Your task to perform on an android device: toggle data saver in the chrome app Image 0: 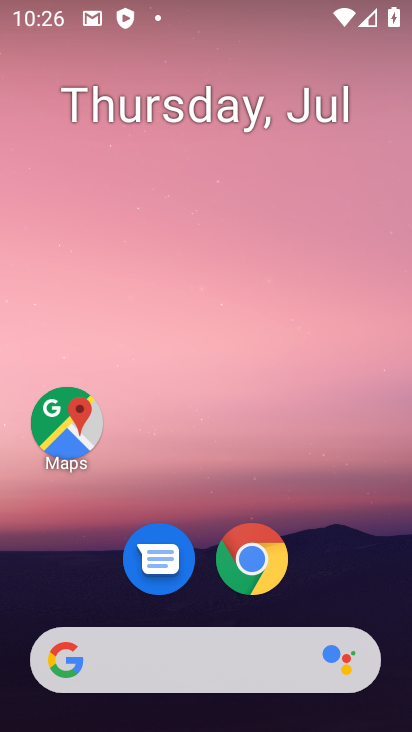
Step 0: click (257, 574)
Your task to perform on an android device: toggle data saver in the chrome app Image 1: 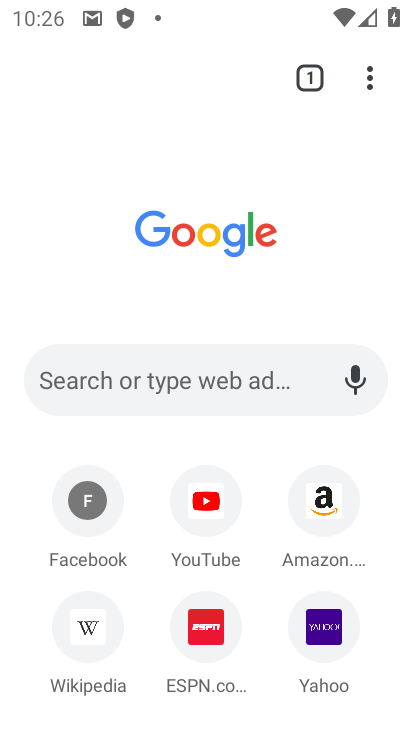
Step 1: drag from (369, 76) to (82, 609)
Your task to perform on an android device: toggle data saver in the chrome app Image 2: 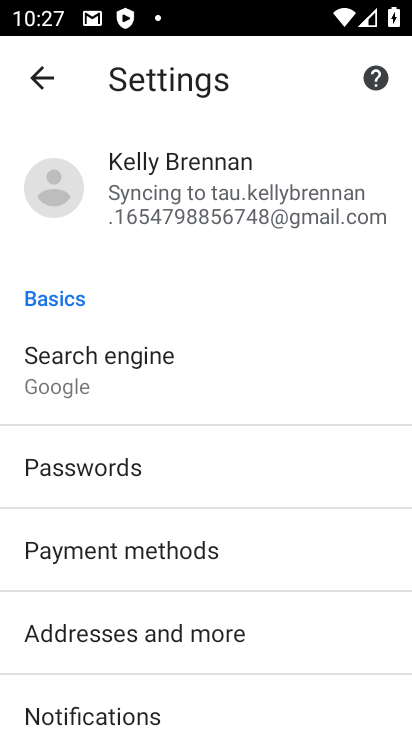
Step 2: drag from (143, 670) to (245, 170)
Your task to perform on an android device: toggle data saver in the chrome app Image 3: 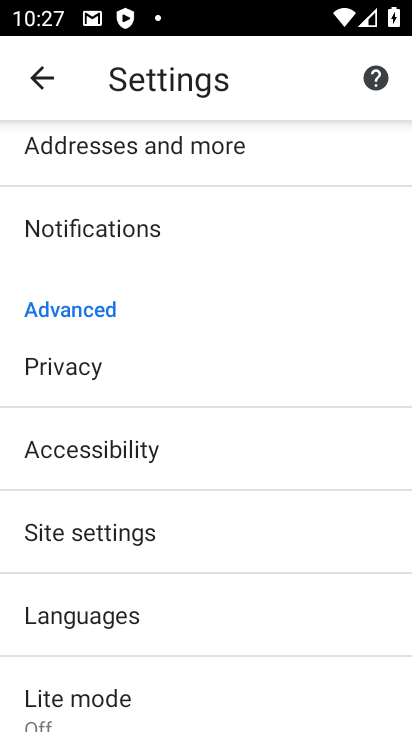
Step 3: drag from (151, 594) to (221, 224)
Your task to perform on an android device: toggle data saver in the chrome app Image 4: 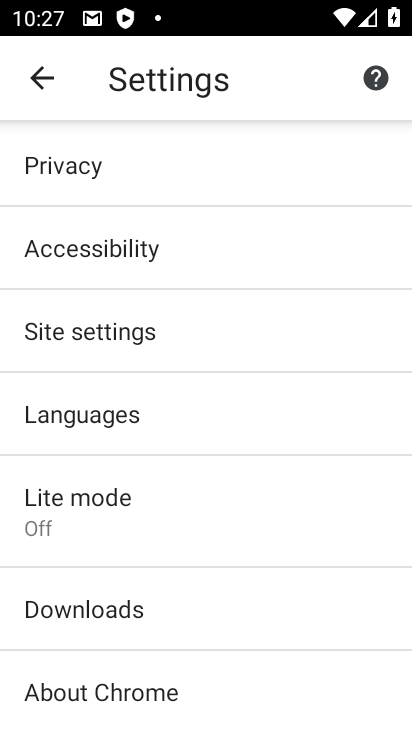
Step 4: click (100, 516)
Your task to perform on an android device: toggle data saver in the chrome app Image 5: 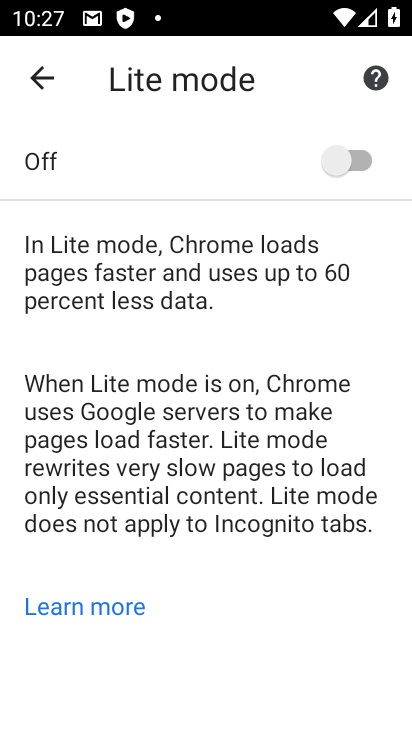
Step 5: click (362, 152)
Your task to perform on an android device: toggle data saver in the chrome app Image 6: 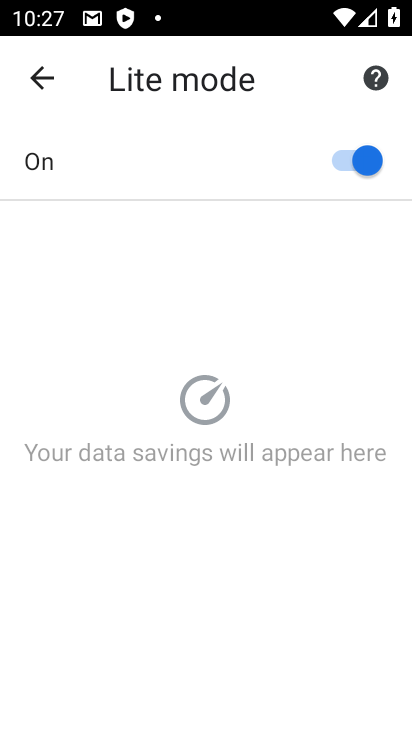
Step 6: task complete